Your task to perform on an android device: turn on improve location accuracy Image 0: 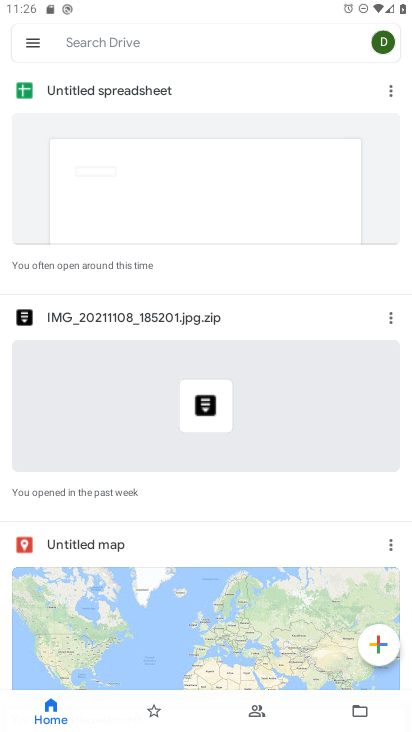
Step 0: press home button
Your task to perform on an android device: turn on improve location accuracy Image 1: 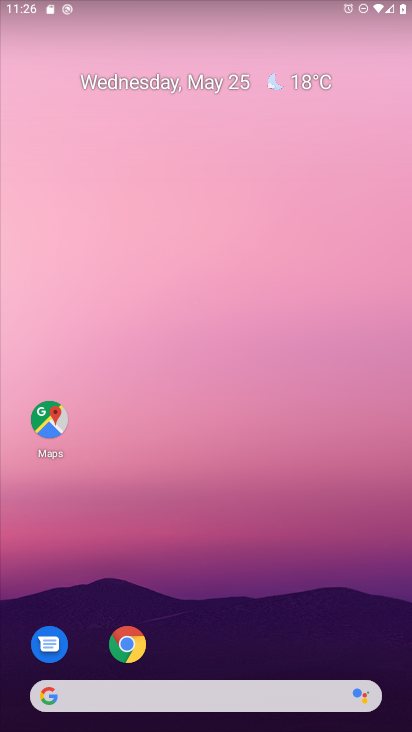
Step 1: drag from (226, 666) to (246, 8)
Your task to perform on an android device: turn on improve location accuracy Image 2: 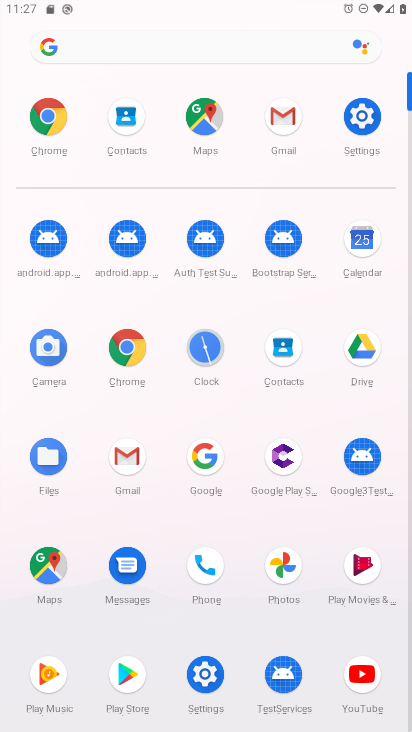
Step 2: click (360, 111)
Your task to perform on an android device: turn on improve location accuracy Image 3: 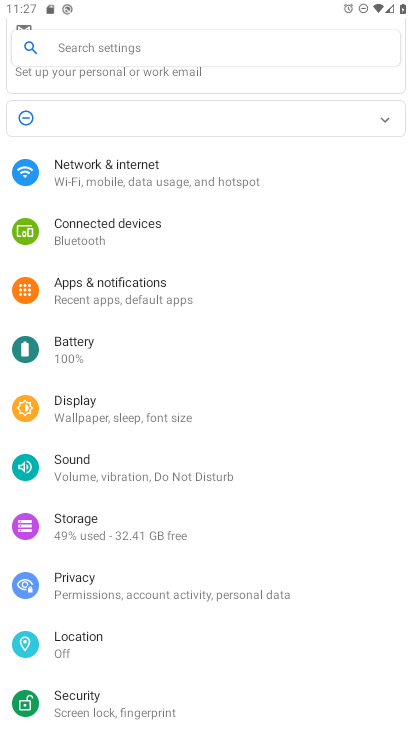
Step 3: click (99, 644)
Your task to perform on an android device: turn on improve location accuracy Image 4: 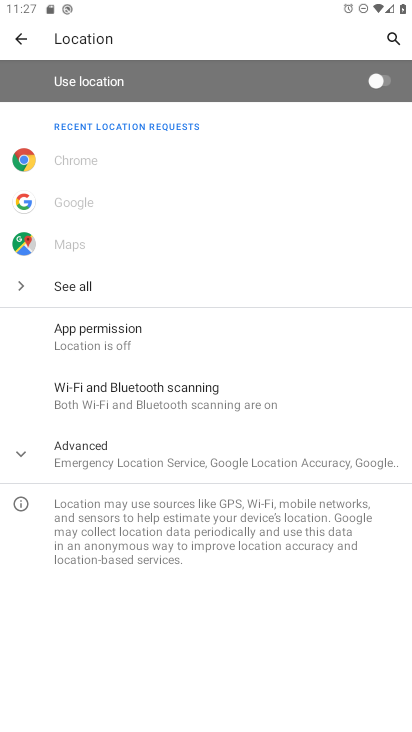
Step 4: click (28, 453)
Your task to perform on an android device: turn on improve location accuracy Image 5: 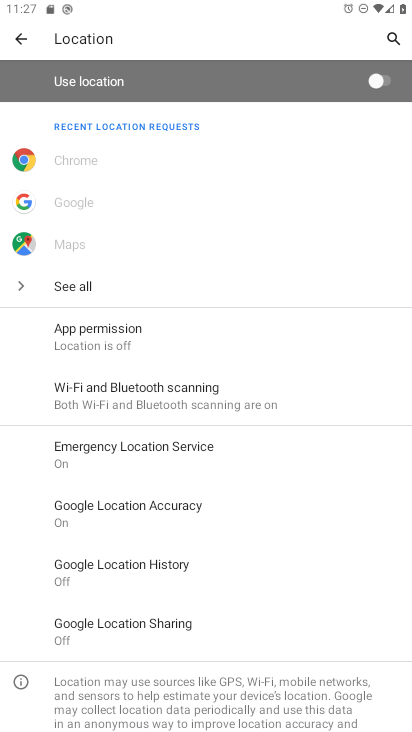
Step 5: click (97, 512)
Your task to perform on an android device: turn on improve location accuracy Image 6: 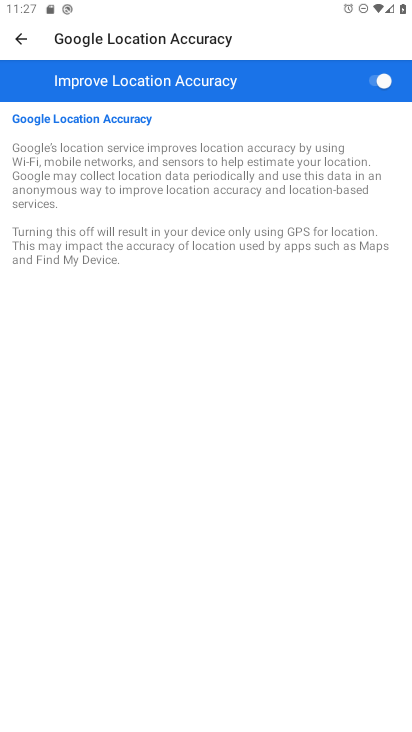
Step 6: task complete